Your task to perform on an android device: Open display settings Image 0: 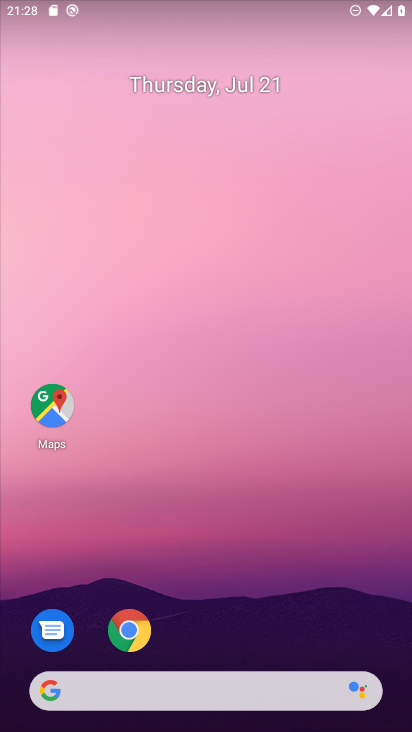
Step 0: drag from (280, 582) to (250, 230)
Your task to perform on an android device: Open display settings Image 1: 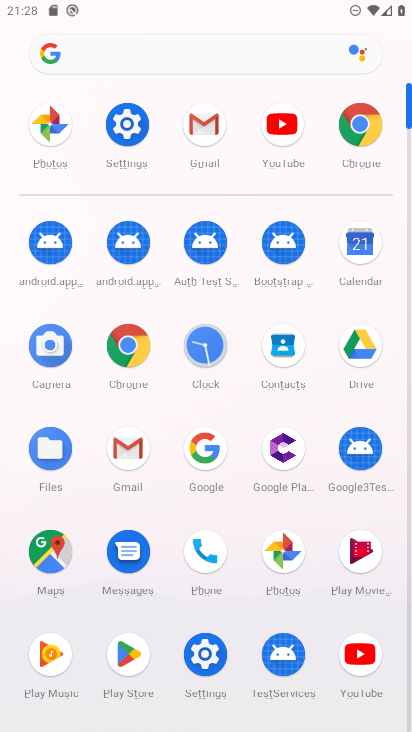
Step 1: click (118, 130)
Your task to perform on an android device: Open display settings Image 2: 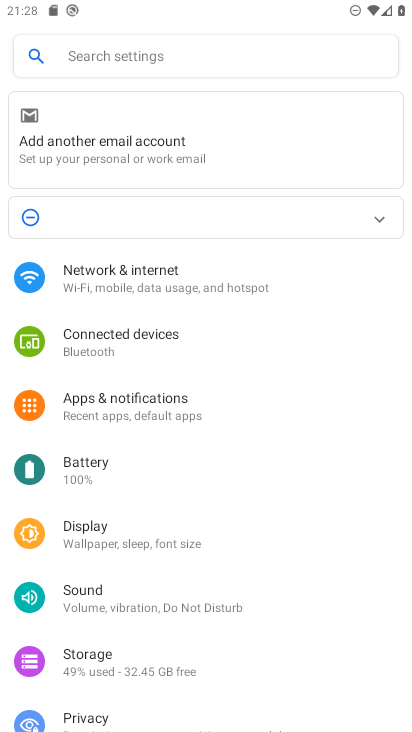
Step 2: click (118, 533)
Your task to perform on an android device: Open display settings Image 3: 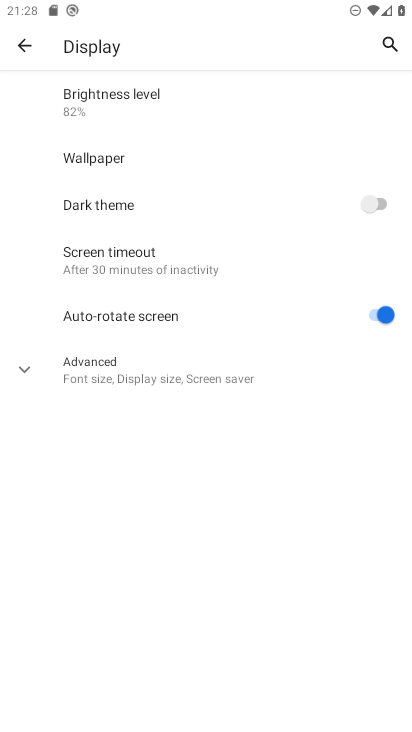
Step 3: task complete